Your task to perform on an android device: Go to Google maps Image 0: 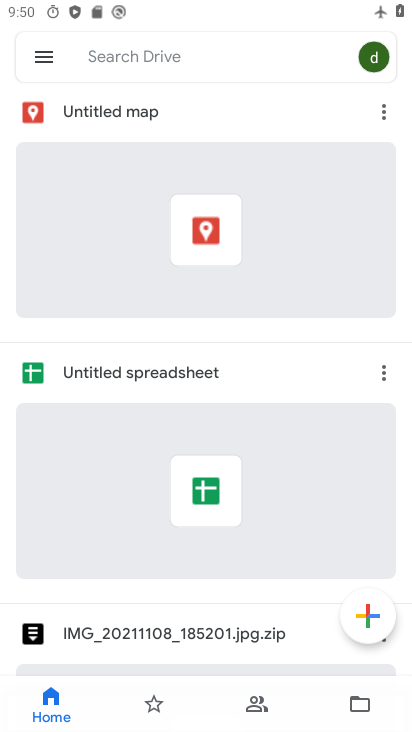
Step 0: press back button
Your task to perform on an android device: Go to Google maps Image 1: 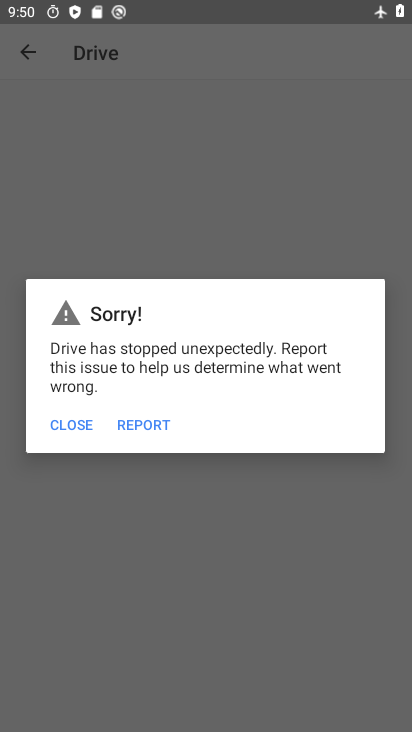
Step 1: press home button
Your task to perform on an android device: Go to Google maps Image 2: 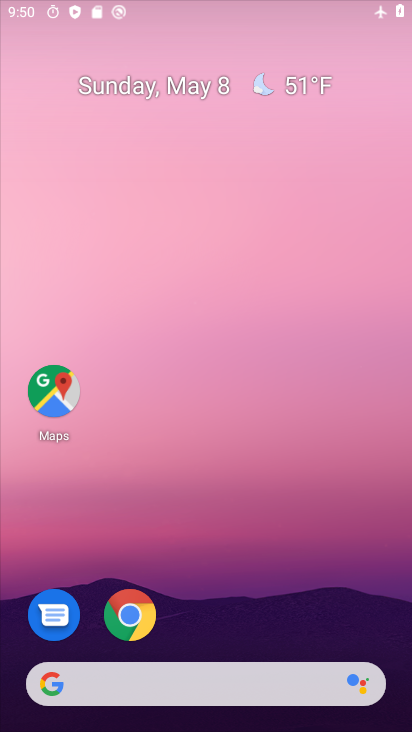
Step 2: drag from (257, 601) to (257, 217)
Your task to perform on an android device: Go to Google maps Image 3: 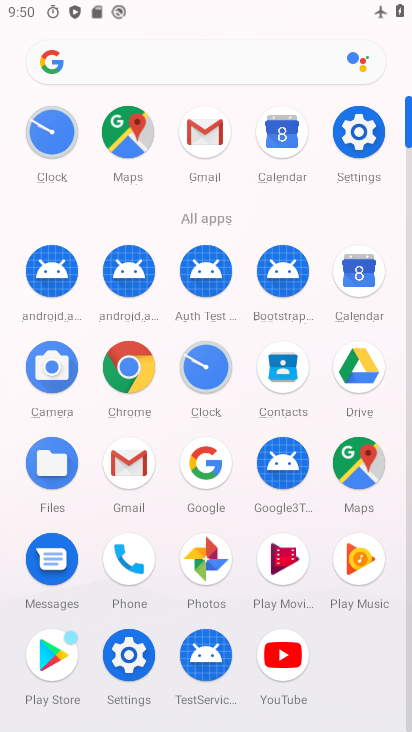
Step 3: click (124, 143)
Your task to perform on an android device: Go to Google maps Image 4: 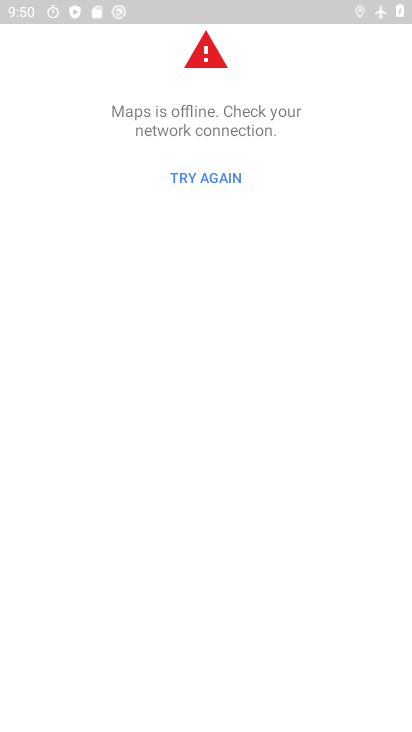
Step 4: task complete